Your task to perform on an android device: turn off notifications settings in the gmail app Image 0: 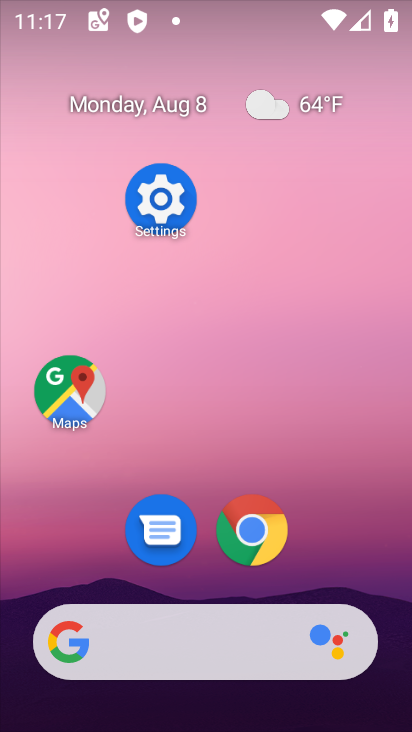
Step 0: drag from (190, 295) to (188, 261)
Your task to perform on an android device: turn off notifications settings in the gmail app Image 1: 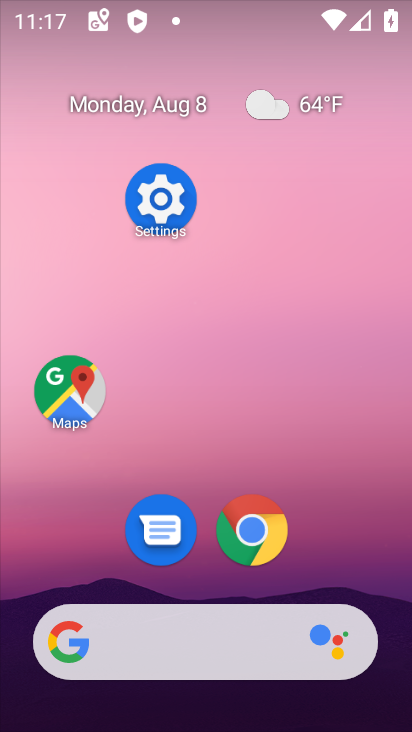
Step 1: drag from (208, 651) to (142, 105)
Your task to perform on an android device: turn off notifications settings in the gmail app Image 2: 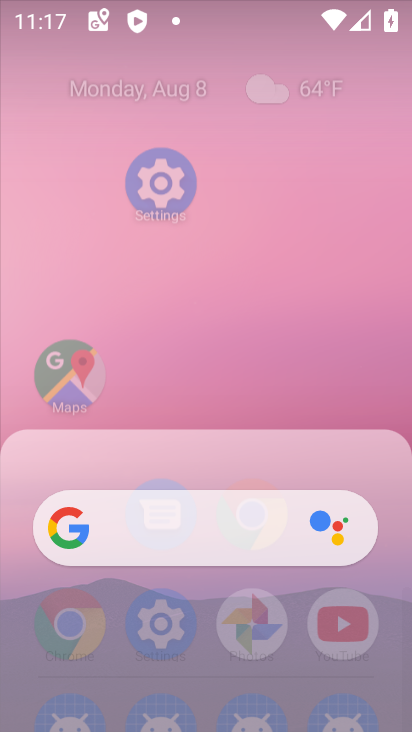
Step 2: drag from (215, 589) to (151, 201)
Your task to perform on an android device: turn off notifications settings in the gmail app Image 3: 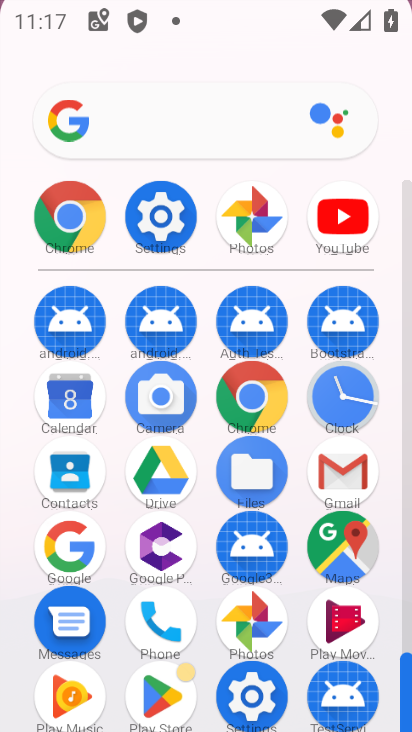
Step 3: drag from (179, 564) to (203, 227)
Your task to perform on an android device: turn off notifications settings in the gmail app Image 4: 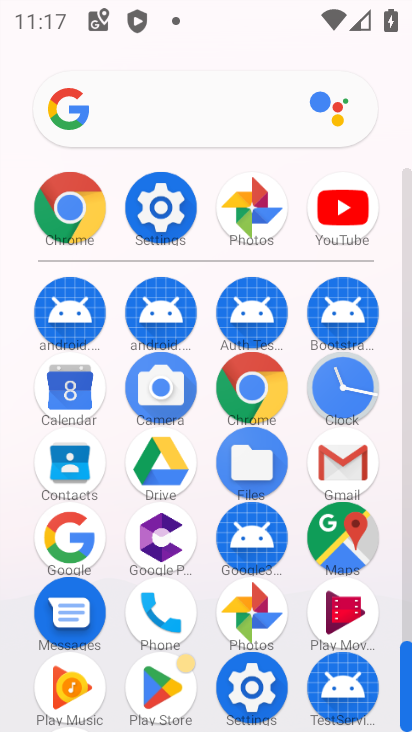
Step 4: click (240, 360)
Your task to perform on an android device: turn off notifications settings in the gmail app Image 5: 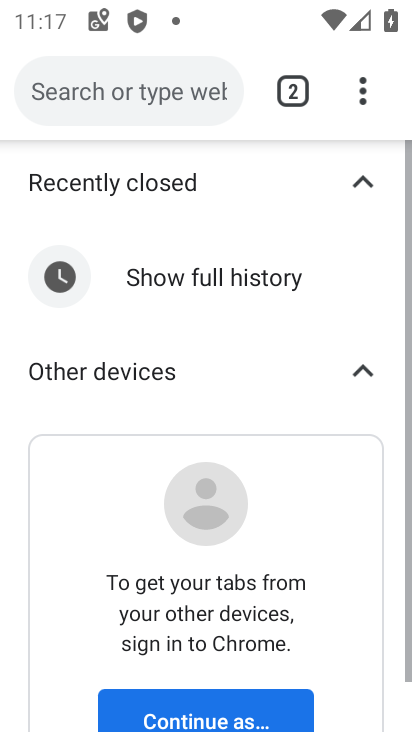
Step 5: press back button
Your task to perform on an android device: turn off notifications settings in the gmail app Image 6: 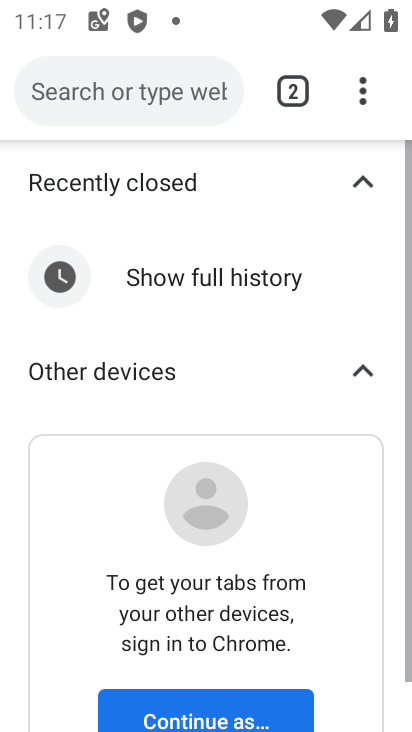
Step 6: press back button
Your task to perform on an android device: turn off notifications settings in the gmail app Image 7: 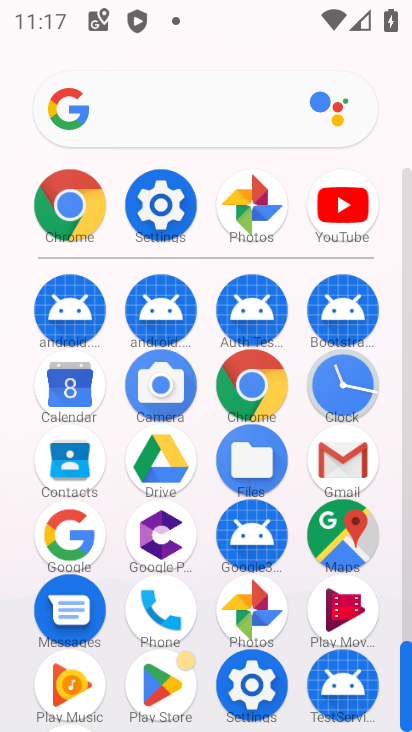
Step 7: click (328, 459)
Your task to perform on an android device: turn off notifications settings in the gmail app Image 8: 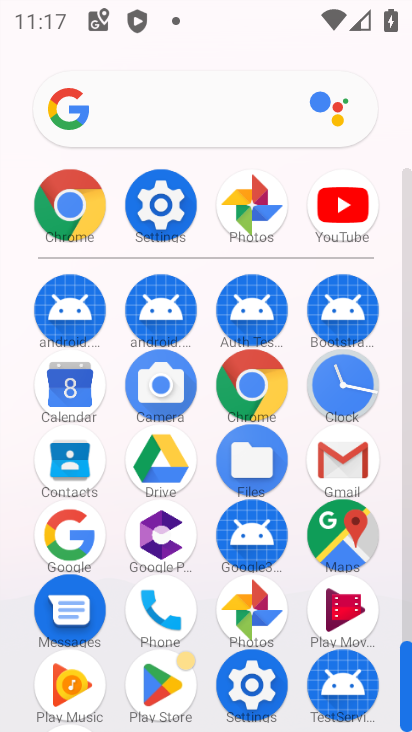
Step 8: click (328, 458)
Your task to perform on an android device: turn off notifications settings in the gmail app Image 9: 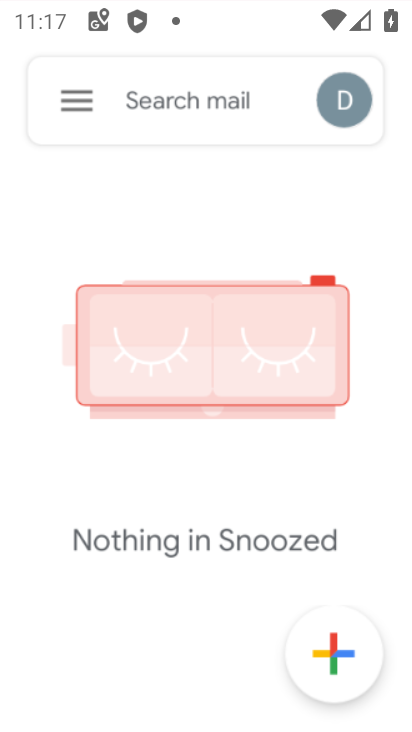
Step 9: click (331, 456)
Your task to perform on an android device: turn off notifications settings in the gmail app Image 10: 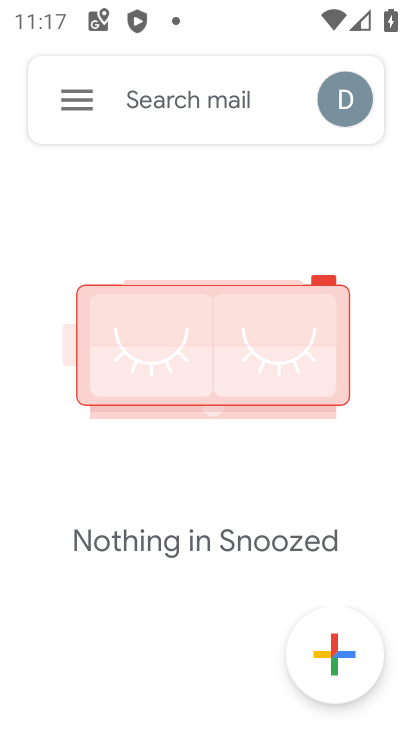
Step 10: click (336, 455)
Your task to perform on an android device: turn off notifications settings in the gmail app Image 11: 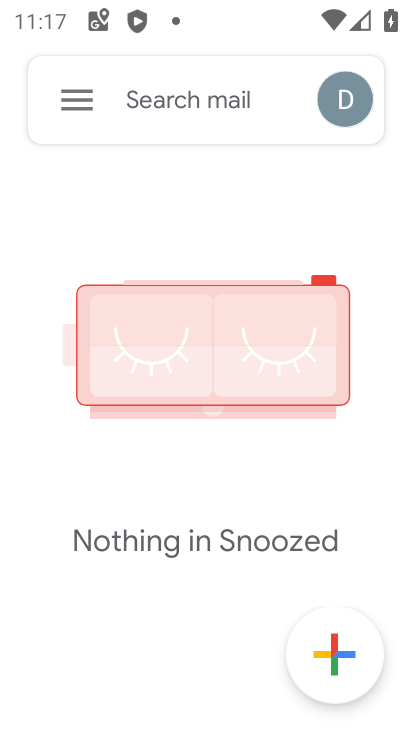
Step 11: press back button
Your task to perform on an android device: turn off notifications settings in the gmail app Image 12: 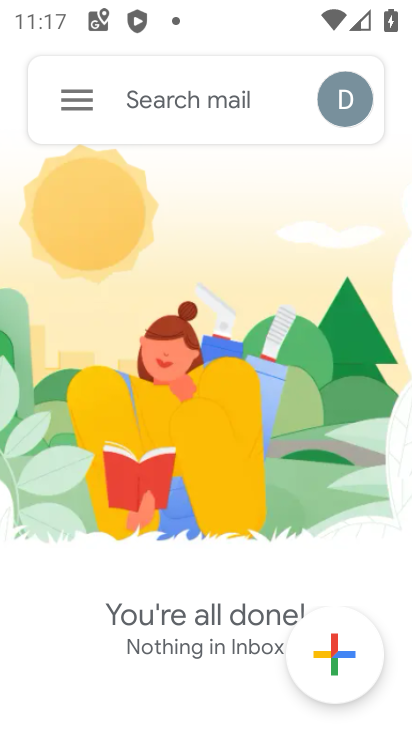
Step 12: click (65, 104)
Your task to perform on an android device: turn off notifications settings in the gmail app Image 13: 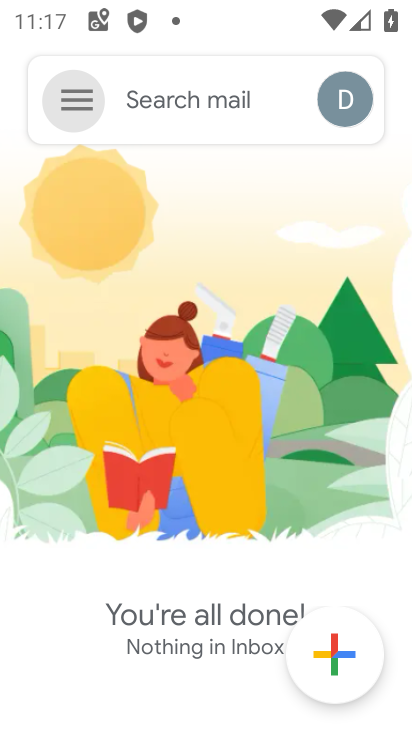
Step 13: click (67, 103)
Your task to perform on an android device: turn off notifications settings in the gmail app Image 14: 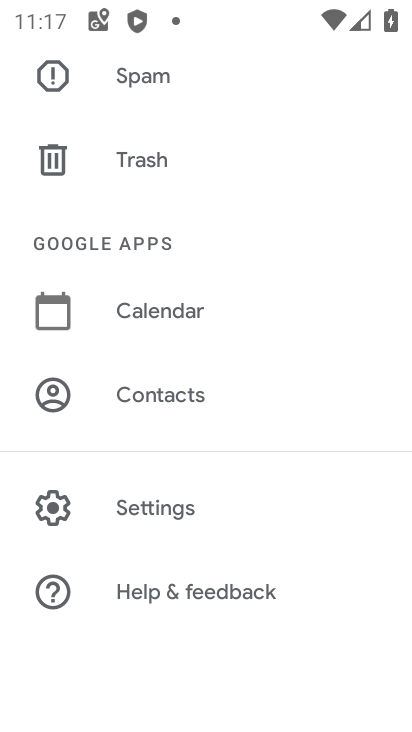
Step 14: click (69, 102)
Your task to perform on an android device: turn off notifications settings in the gmail app Image 15: 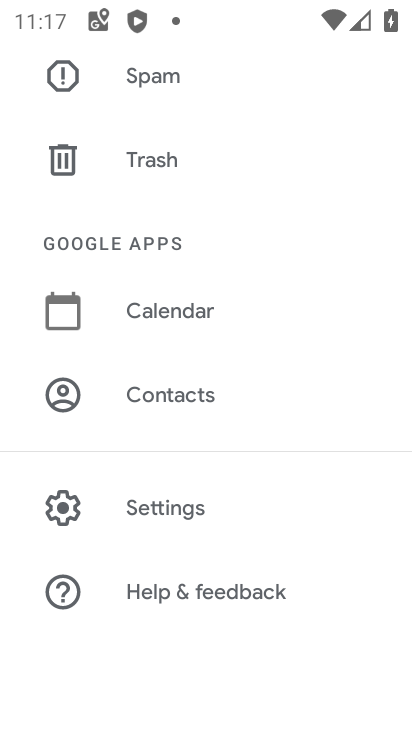
Step 15: drag from (178, 259) to (189, 476)
Your task to perform on an android device: turn off notifications settings in the gmail app Image 16: 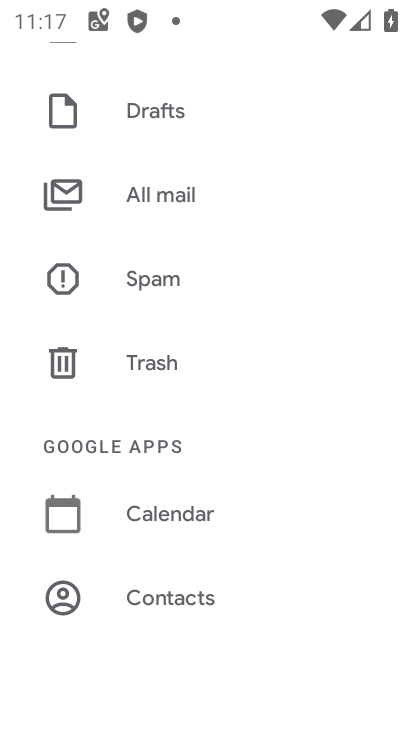
Step 16: drag from (205, 238) to (214, 472)
Your task to perform on an android device: turn off notifications settings in the gmail app Image 17: 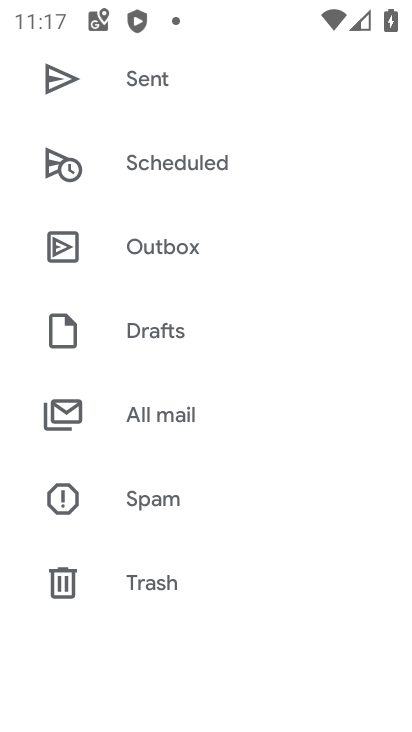
Step 17: drag from (235, 347) to (244, 426)
Your task to perform on an android device: turn off notifications settings in the gmail app Image 18: 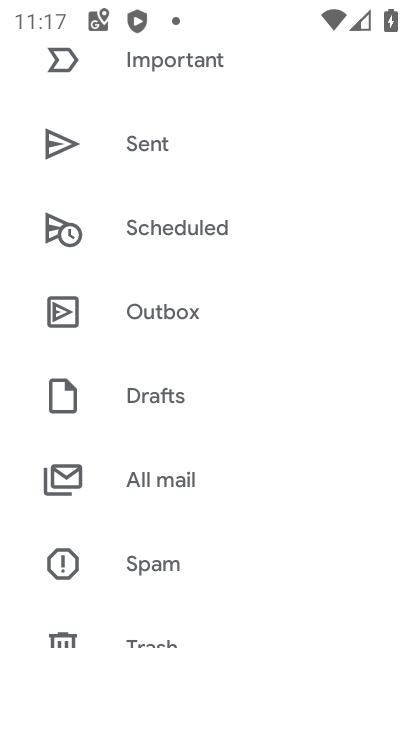
Step 18: drag from (221, 284) to (228, 486)
Your task to perform on an android device: turn off notifications settings in the gmail app Image 19: 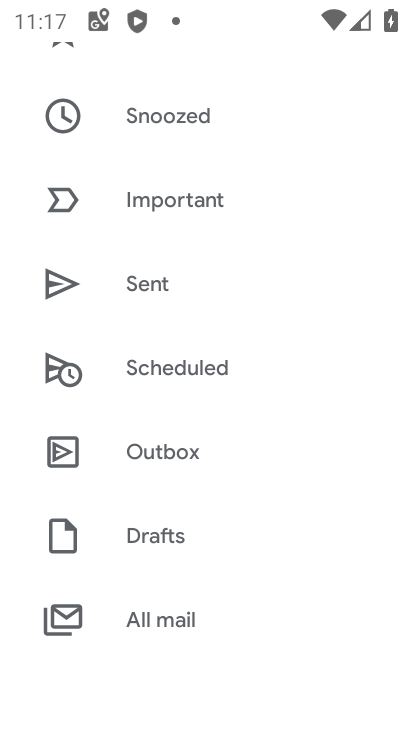
Step 19: drag from (180, 220) to (168, 367)
Your task to perform on an android device: turn off notifications settings in the gmail app Image 20: 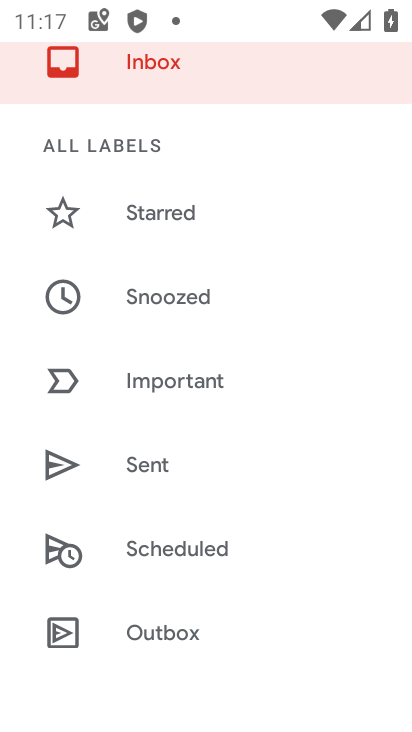
Step 20: drag from (162, 290) to (172, 208)
Your task to perform on an android device: turn off notifications settings in the gmail app Image 21: 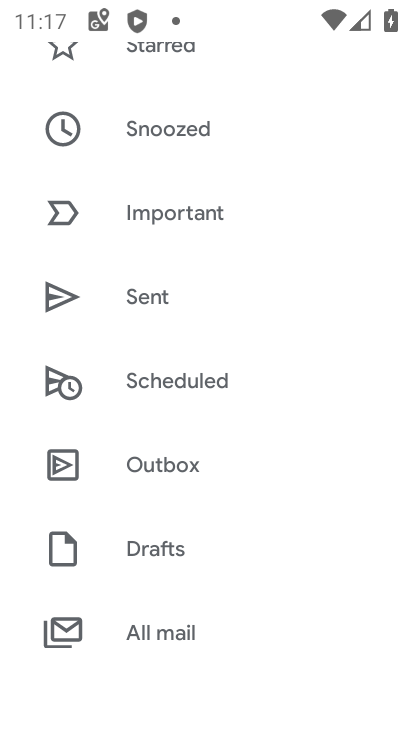
Step 21: drag from (168, 425) to (163, 245)
Your task to perform on an android device: turn off notifications settings in the gmail app Image 22: 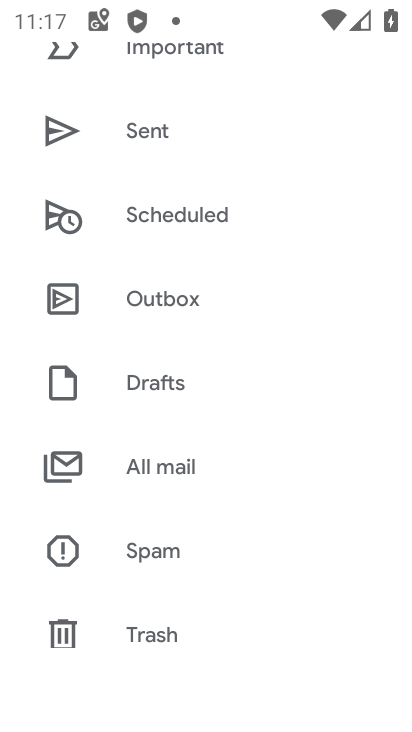
Step 22: drag from (176, 554) to (226, 306)
Your task to perform on an android device: turn off notifications settings in the gmail app Image 23: 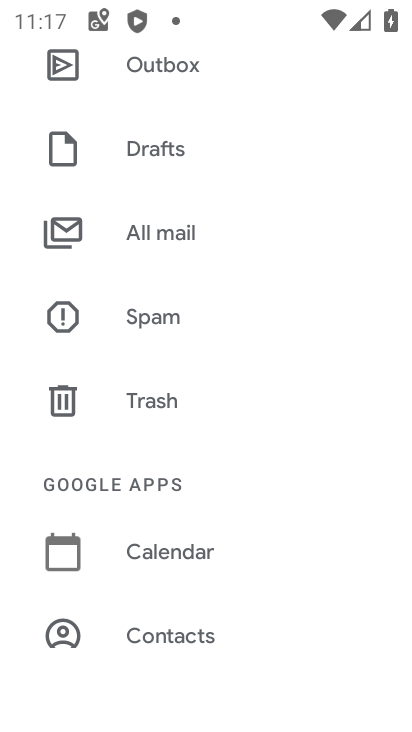
Step 23: drag from (159, 596) to (173, 281)
Your task to perform on an android device: turn off notifications settings in the gmail app Image 24: 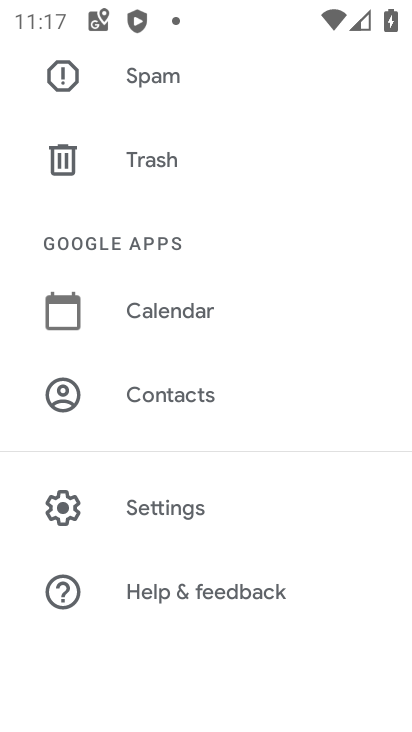
Step 24: drag from (142, 641) to (201, 393)
Your task to perform on an android device: turn off notifications settings in the gmail app Image 25: 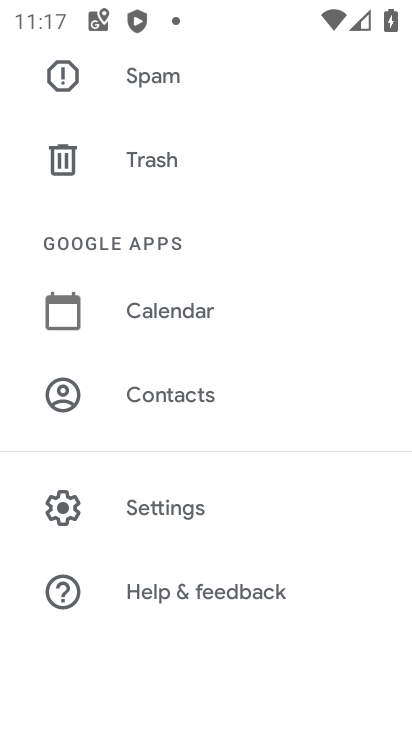
Step 25: click (154, 511)
Your task to perform on an android device: turn off notifications settings in the gmail app Image 26: 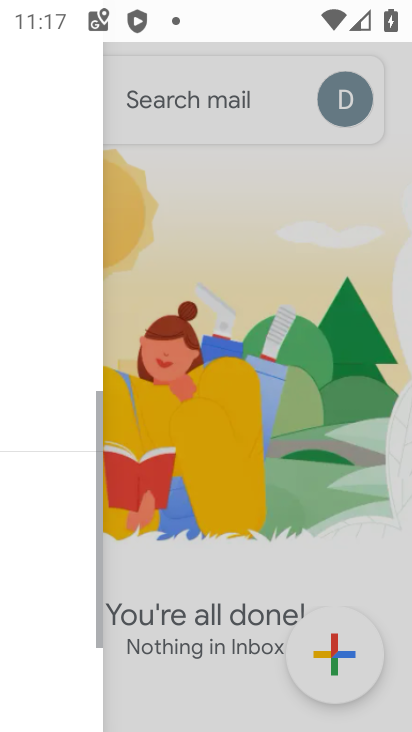
Step 26: click (153, 512)
Your task to perform on an android device: turn off notifications settings in the gmail app Image 27: 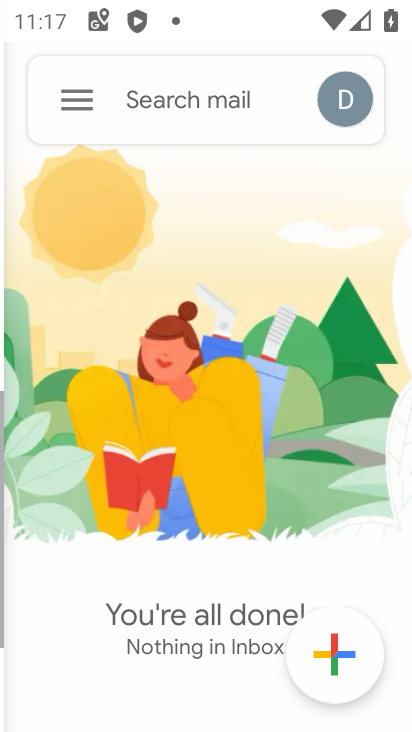
Step 27: click (153, 513)
Your task to perform on an android device: turn off notifications settings in the gmail app Image 28: 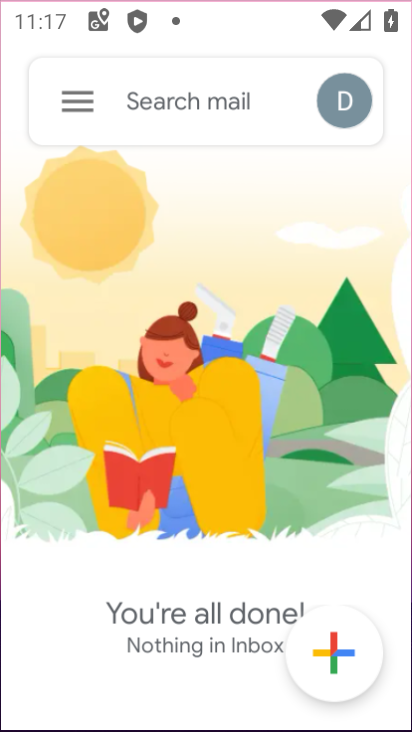
Step 28: click (155, 514)
Your task to perform on an android device: turn off notifications settings in the gmail app Image 29: 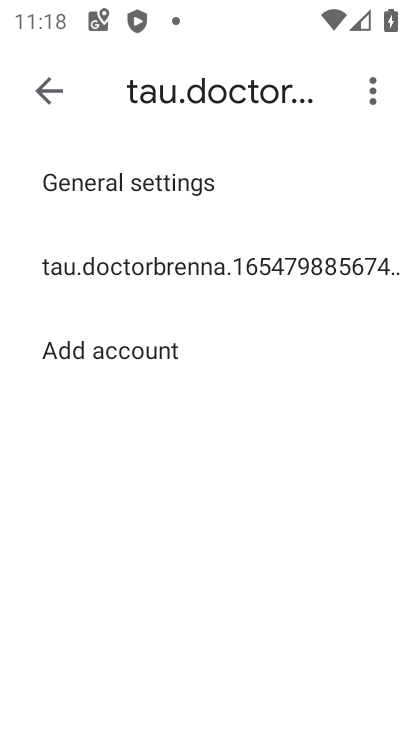
Step 29: click (135, 267)
Your task to perform on an android device: turn off notifications settings in the gmail app Image 30: 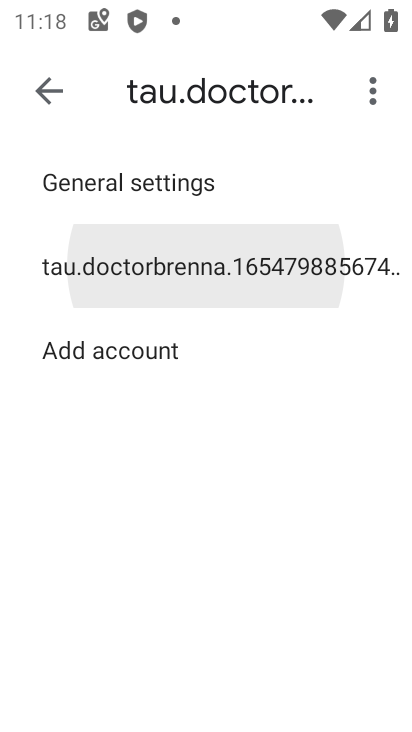
Step 30: click (134, 267)
Your task to perform on an android device: turn off notifications settings in the gmail app Image 31: 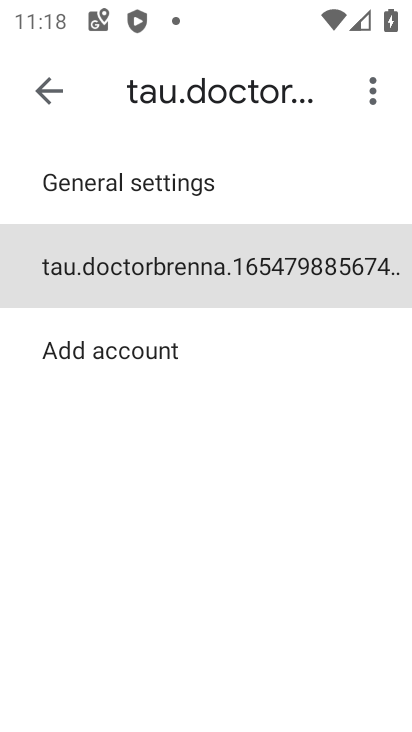
Step 31: click (133, 270)
Your task to perform on an android device: turn off notifications settings in the gmail app Image 32: 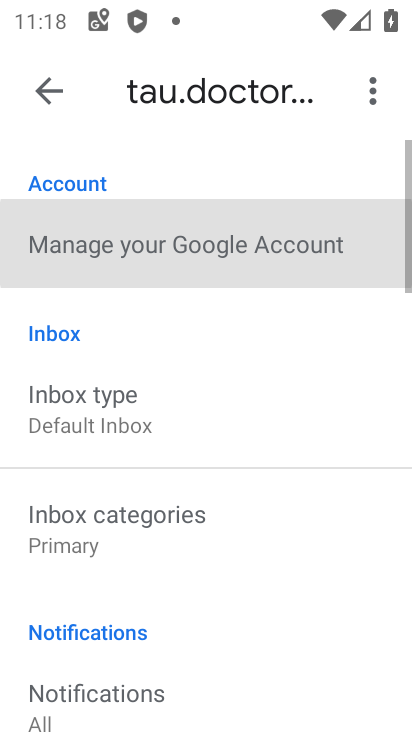
Step 32: click (146, 277)
Your task to perform on an android device: turn off notifications settings in the gmail app Image 33: 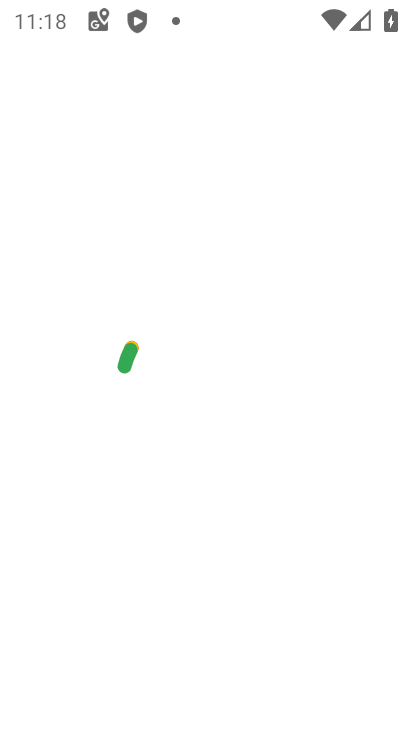
Step 33: press back button
Your task to perform on an android device: turn off notifications settings in the gmail app Image 34: 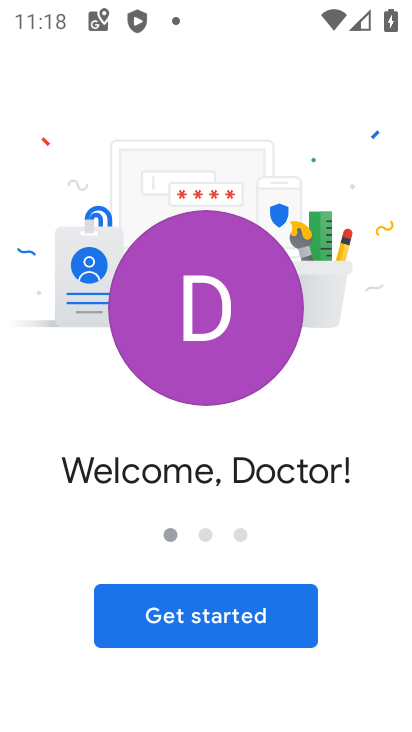
Step 34: press back button
Your task to perform on an android device: turn off notifications settings in the gmail app Image 35: 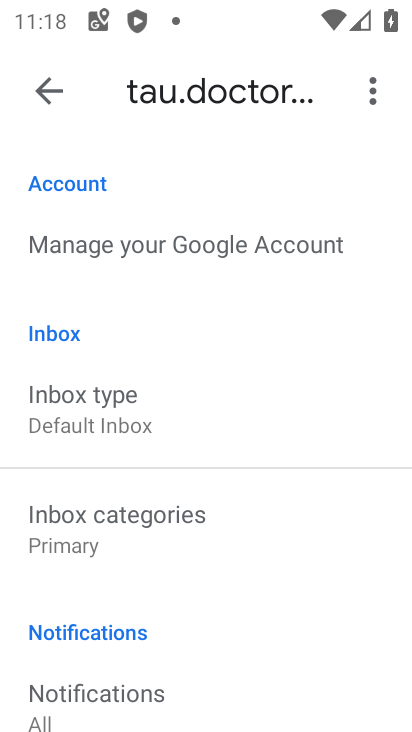
Step 35: drag from (36, 517) to (72, 239)
Your task to perform on an android device: turn off notifications settings in the gmail app Image 36: 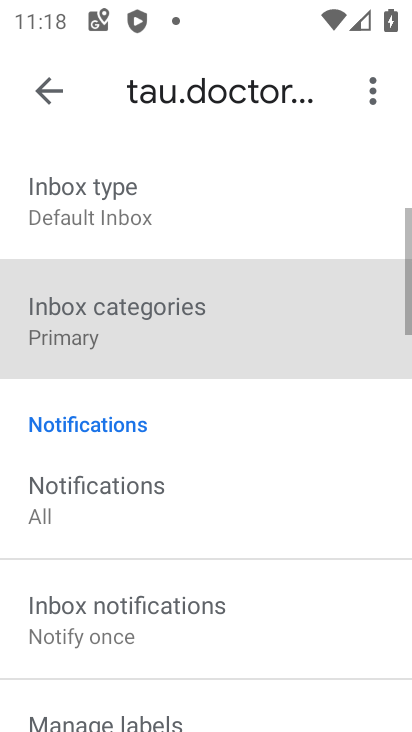
Step 36: drag from (146, 508) to (143, 273)
Your task to perform on an android device: turn off notifications settings in the gmail app Image 37: 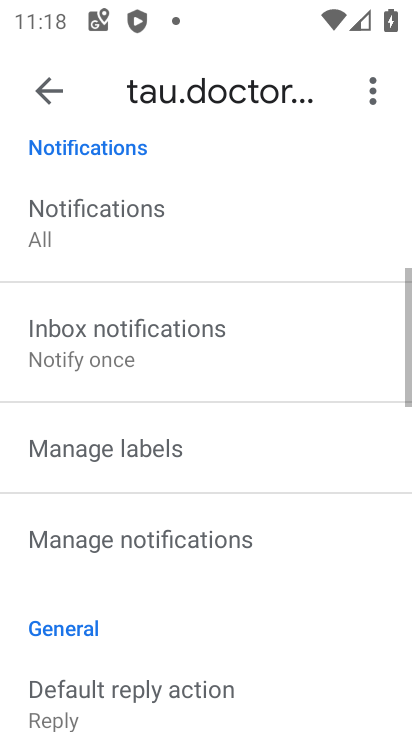
Step 37: drag from (97, 470) to (74, 241)
Your task to perform on an android device: turn off notifications settings in the gmail app Image 38: 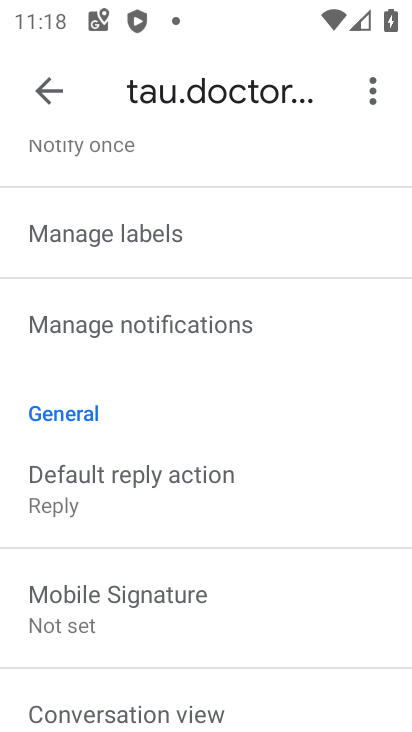
Step 38: drag from (196, 567) to (191, 409)
Your task to perform on an android device: turn off notifications settings in the gmail app Image 39: 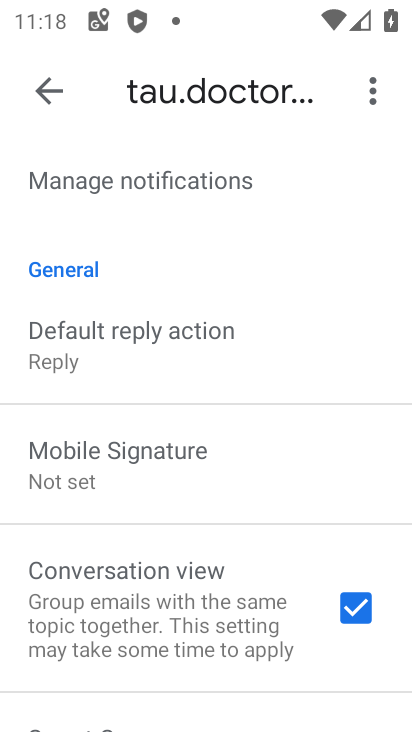
Step 39: drag from (255, 464) to (216, 194)
Your task to perform on an android device: turn off notifications settings in the gmail app Image 40: 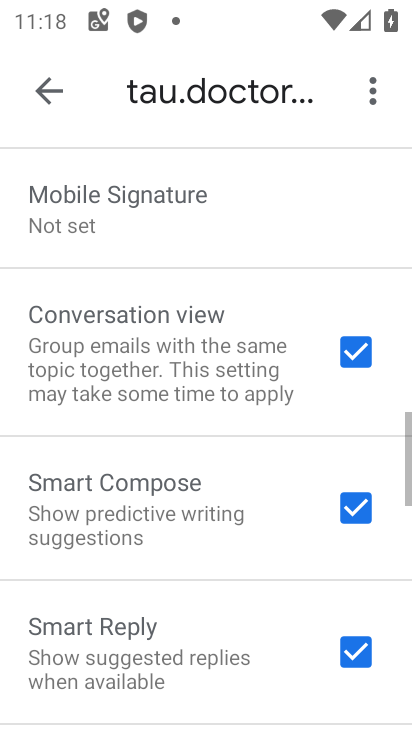
Step 40: drag from (285, 467) to (290, 285)
Your task to perform on an android device: turn off notifications settings in the gmail app Image 41: 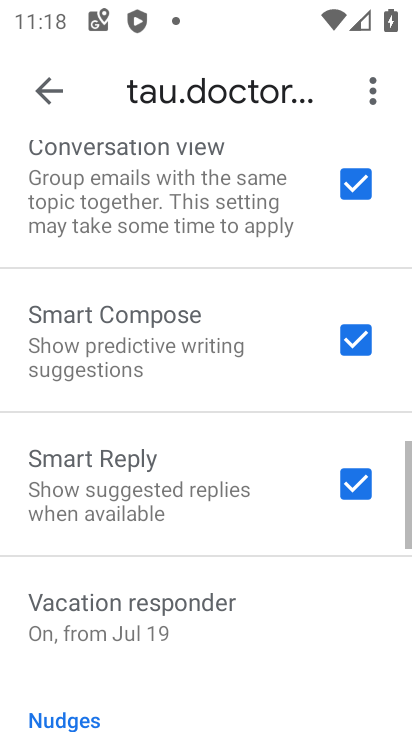
Step 41: drag from (200, 594) to (200, 318)
Your task to perform on an android device: turn off notifications settings in the gmail app Image 42: 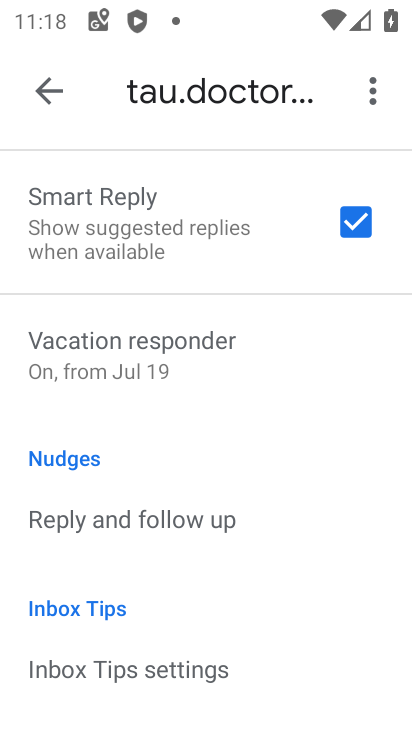
Step 42: drag from (182, 586) to (191, 317)
Your task to perform on an android device: turn off notifications settings in the gmail app Image 43: 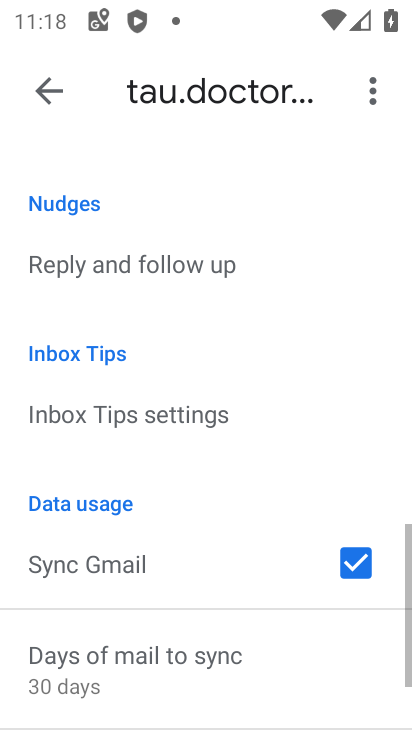
Step 43: drag from (207, 502) to (179, 279)
Your task to perform on an android device: turn off notifications settings in the gmail app Image 44: 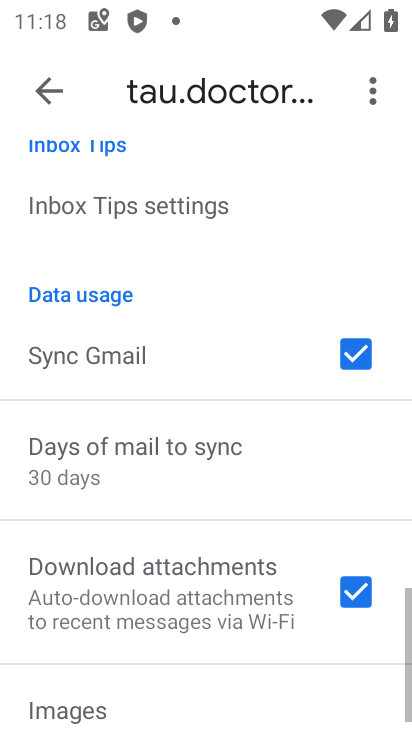
Step 44: drag from (236, 518) to (235, 306)
Your task to perform on an android device: turn off notifications settings in the gmail app Image 45: 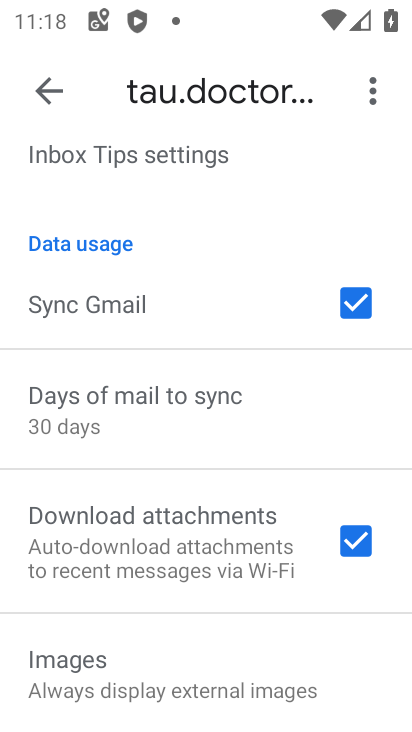
Step 45: drag from (184, 265) to (123, 580)
Your task to perform on an android device: turn off notifications settings in the gmail app Image 46: 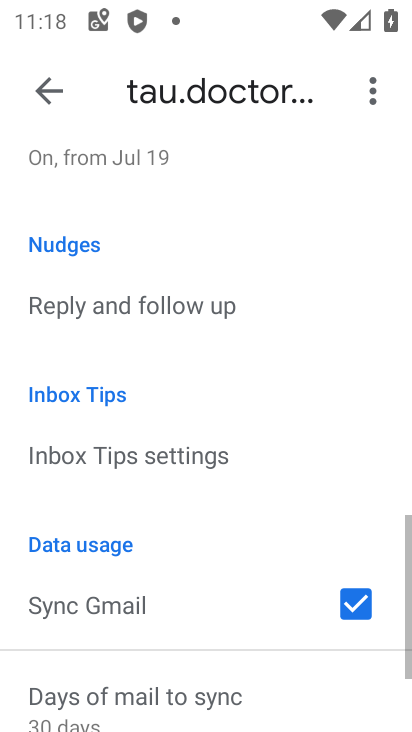
Step 46: drag from (124, 445) to (141, 563)
Your task to perform on an android device: turn off notifications settings in the gmail app Image 47: 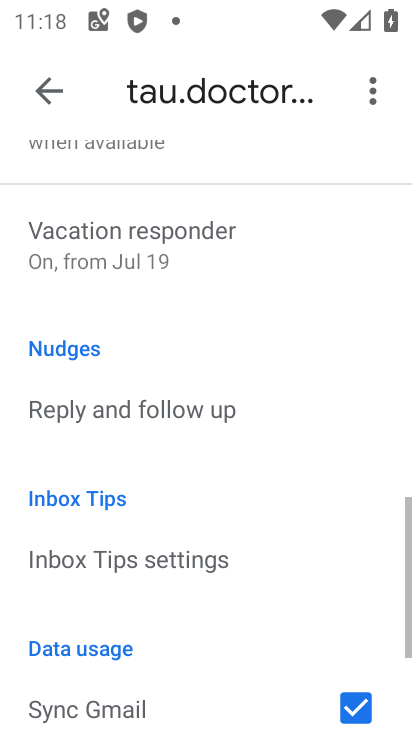
Step 47: drag from (166, 371) to (183, 661)
Your task to perform on an android device: turn off notifications settings in the gmail app Image 48: 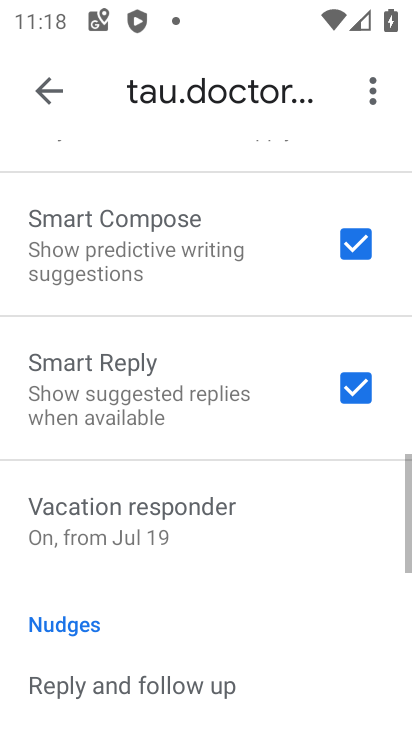
Step 48: drag from (206, 345) to (195, 724)
Your task to perform on an android device: turn off notifications settings in the gmail app Image 49: 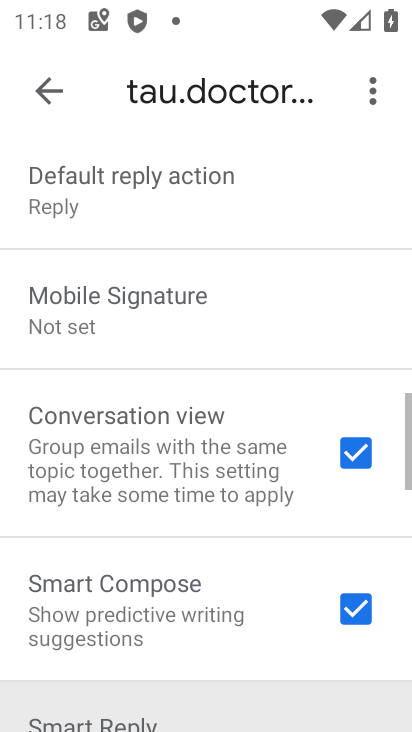
Step 49: drag from (206, 366) to (218, 527)
Your task to perform on an android device: turn off notifications settings in the gmail app Image 50: 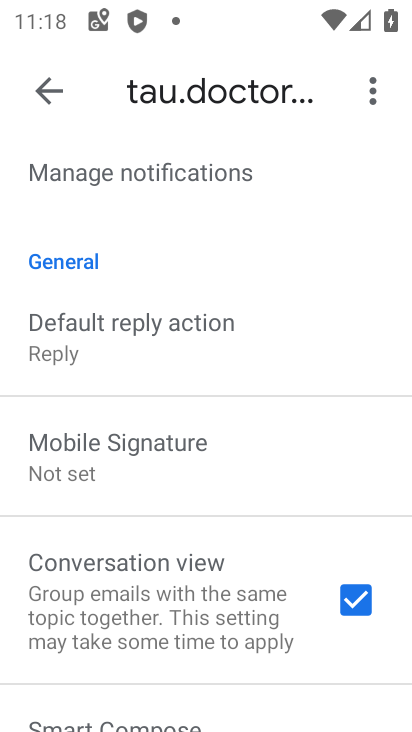
Step 50: drag from (162, 634) to (121, 353)
Your task to perform on an android device: turn off notifications settings in the gmail app Image 51: 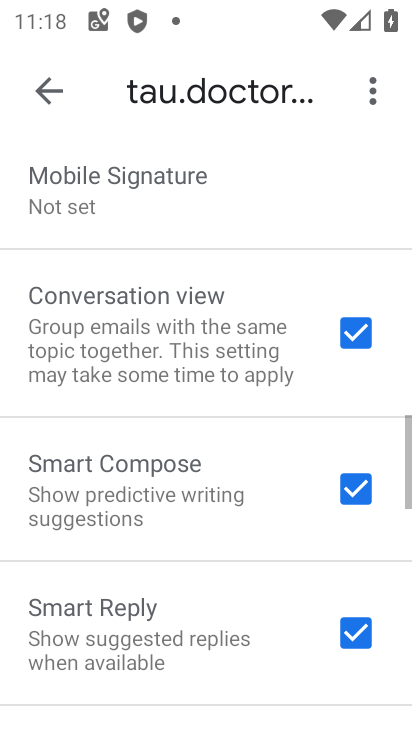
Step 51: drag from (175, 539) to (163, 377)
Your task to perform on an android device: turn off notifications settings in the gmail app Image 52: 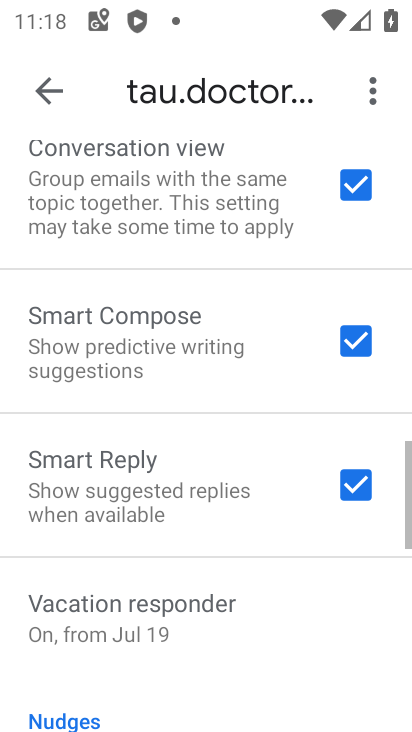
Step 52: drag from (197, 424) to (186, 293)
Your task to perform on an android device: turn off notifications settings in the gmail app Image 53: 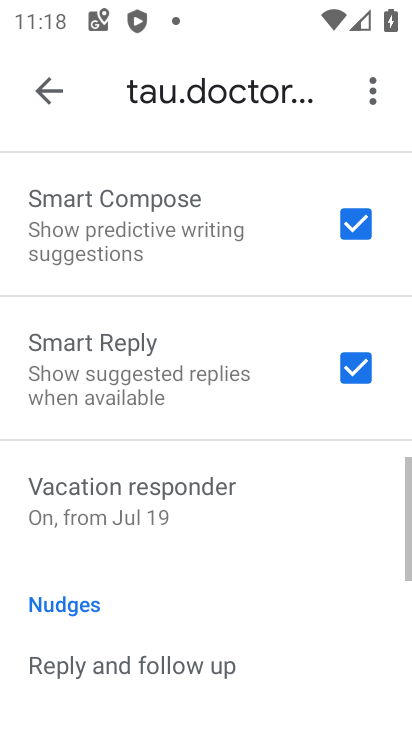
Step 53: drag from (199, 445) to (191, 285)
Your task to perform on an android device: turn off notifications settings in the gmail app Image 54: 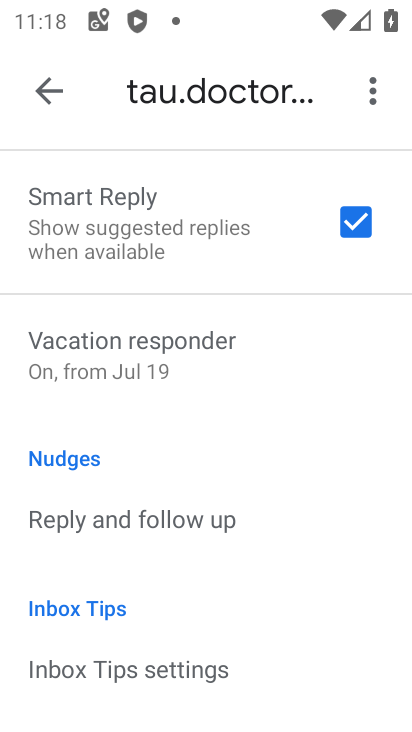
Step 54: drag from (187, 535) to (161, 394)
Your task to perform on an android device: turn off notifications settings in the gmail app Image 55: 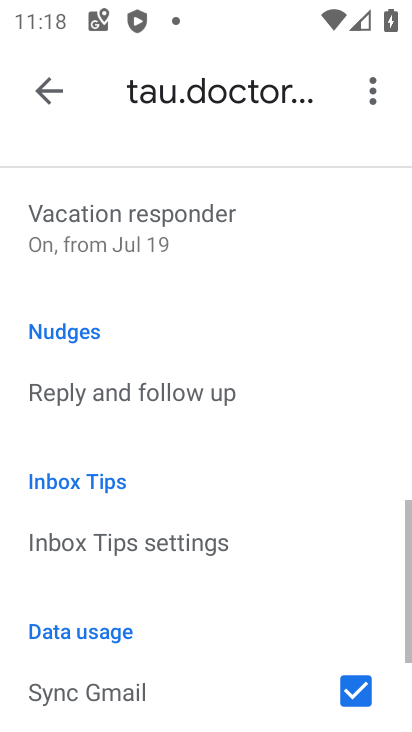
Step 55: drag from (165, 523) to (154, 368)
Your task to perform on an android device: turn off notifications settings in the gmail app Image 56: 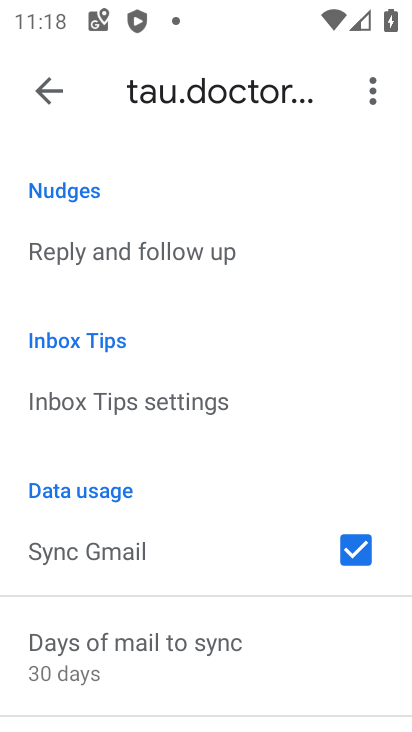
Step 56: drag from (166, 582) to (160, 319)
Your task to perform on an android device: turn off notifications settings in the gmail app Image 57: 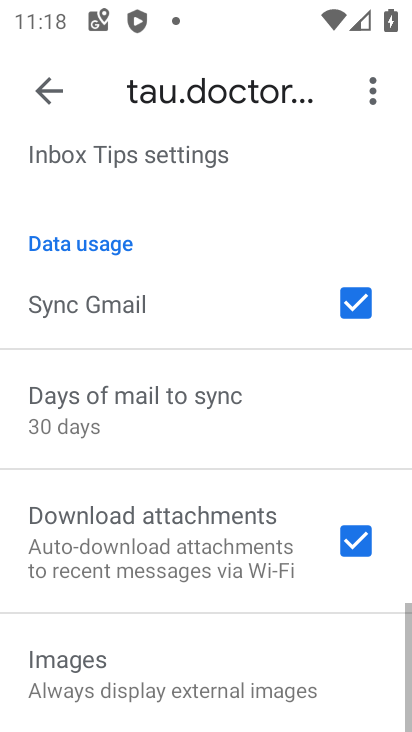
Step 57: drag from (201, 534) to (183, 363)
Your task to perform on an android device: turn off notifications settings in the gmail app Image 58: 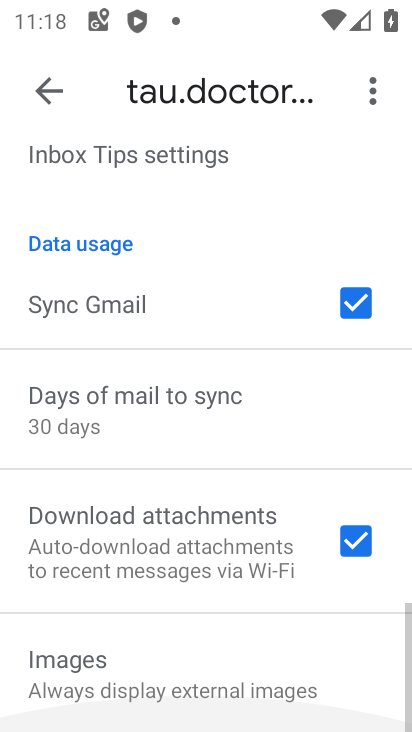
Step 58: drag from (216, 478) to (210, 343)
Your task to perform on an android device: turn off notifications settings in the gmail app Image 59: 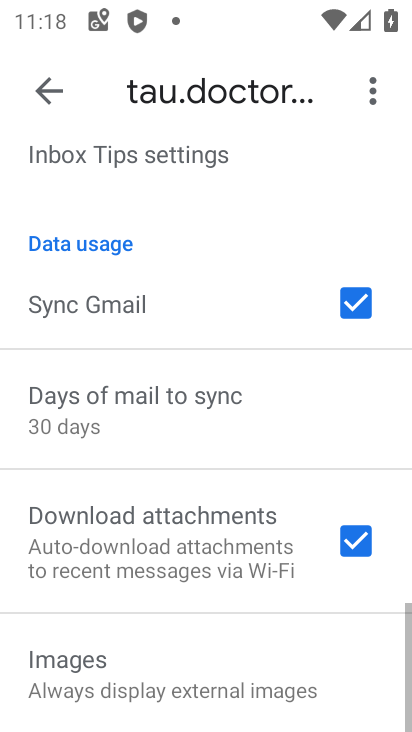
Step 59: drag from (198, 611) to (173, 315)
Your task to perform on an android device: turn off notifications settings in the gmail app Image 60: 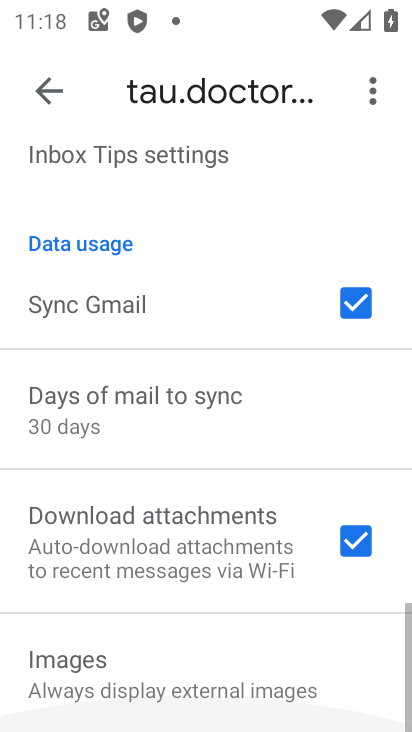
Step 60: drag from (164, 542) to (188, 245)
Your task to perform on an android device: turn off notifications settings in the gmail app Image 61: 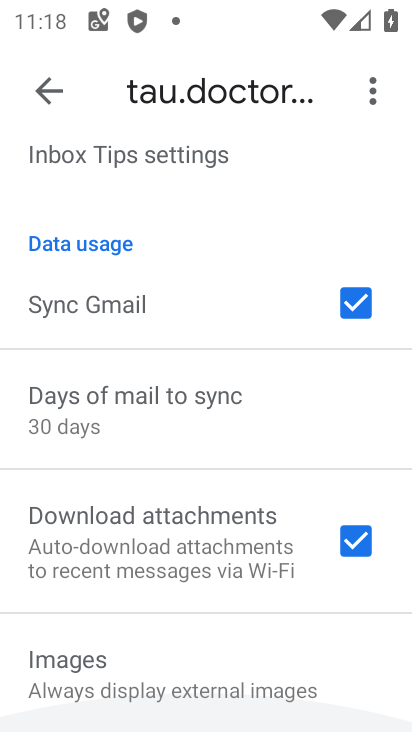
Step 61: drag from (199, 207) to (200, 542)
Your task to perform on an android device: turn off notifications settings in the gmail app Image 62: 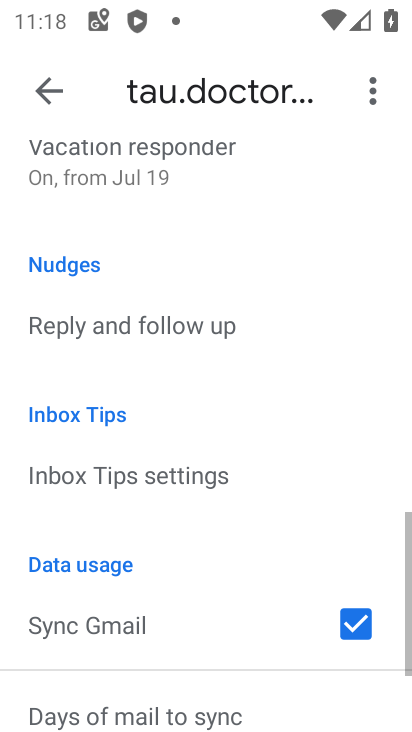
Step 62: drag from (229, 258) to (229, 528)
Your task to perform on an android device: turn off notifications settings in the gmail app Image 63: 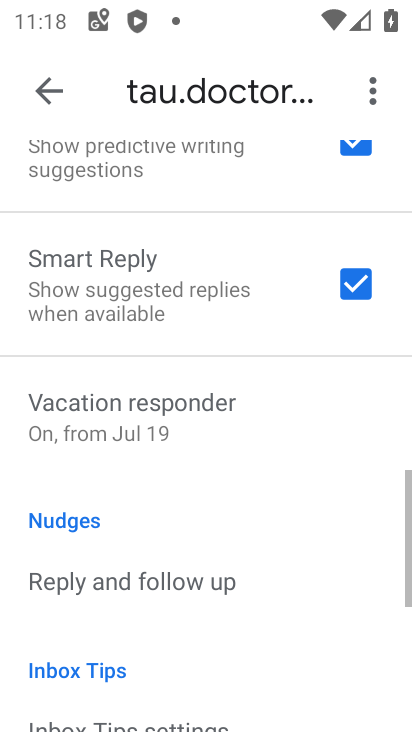
Step 63: drag from (186, 325) to (186, 545)
Your task to perform on an android device: turn off notifications settings in the gmail app Image 64: 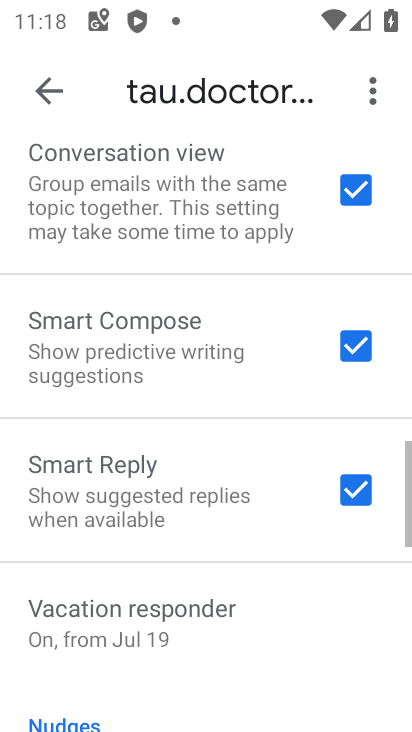
Step 64: drag from (165, 325) to (165, 548)
Your task to perform on an android device: turn off notifications settings in the gmail app Image 65: 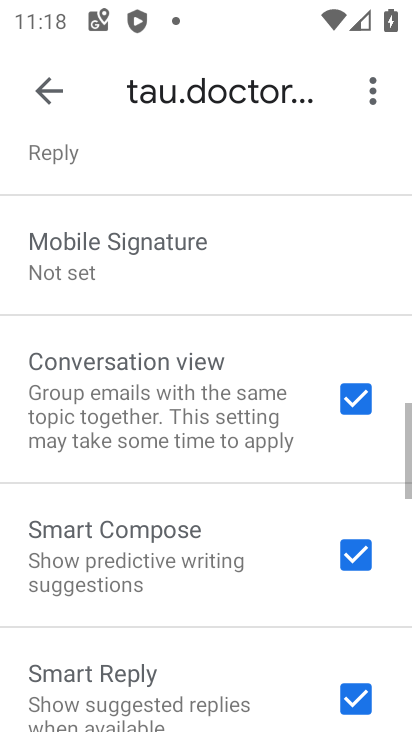
Step 65: drag from (154, 343) to (170, 551)
Your task to perform on an android device: turn off notifications settings in the gmail app Image 66: 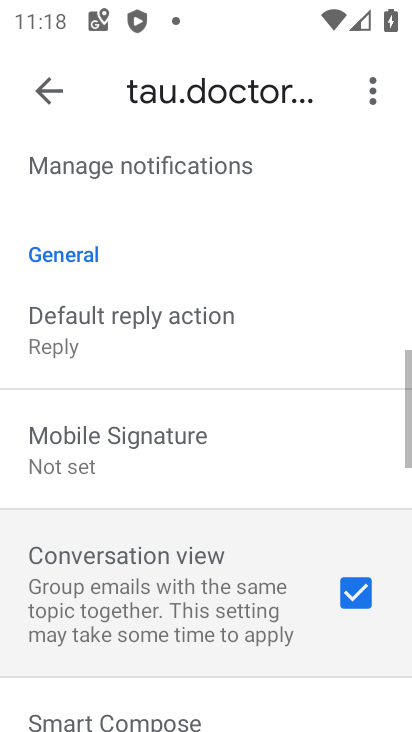
Step 66: drag from (173, 323) to (170, 567)
Your task to perform on an android device: turn off notifications settings in the gmail app Image 67: 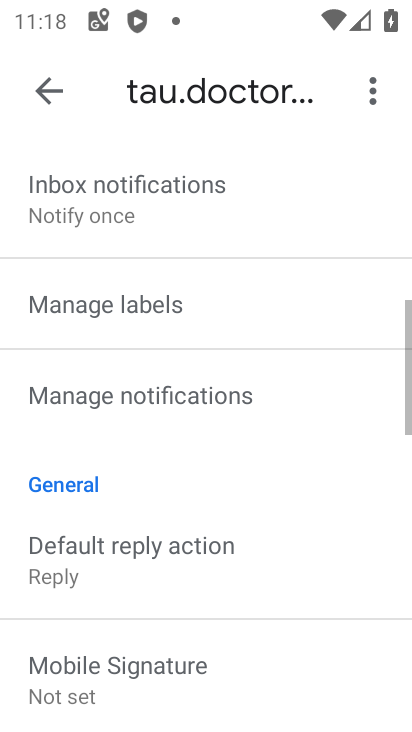
Step 67: drag from (173, 323) to (175, 556)
Your task to perform on an android device: turn off notifications settings in the gmail app Image 68: 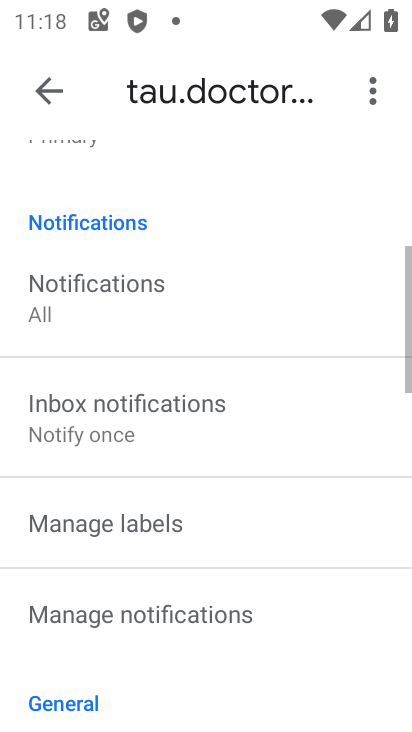
Step 68: drag from (194, 345) to (184, 520)
Your task to perform on an android device: turn off notifications settings in the gmail app Image 69: 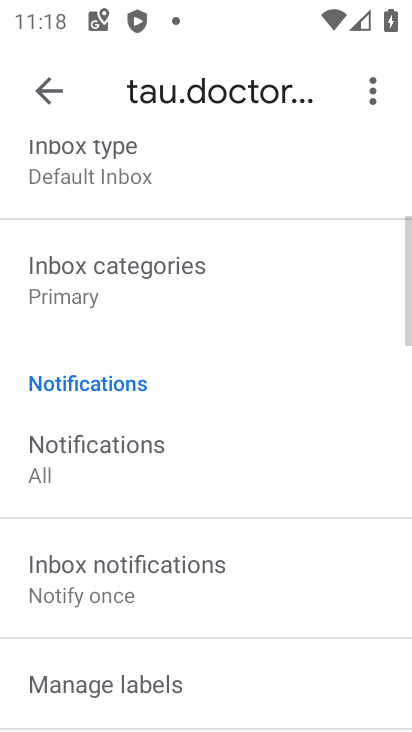
Step 69: click (63, 450)
Your task to perform on an android device: turn off notifications settings in the gmail app Image 70: 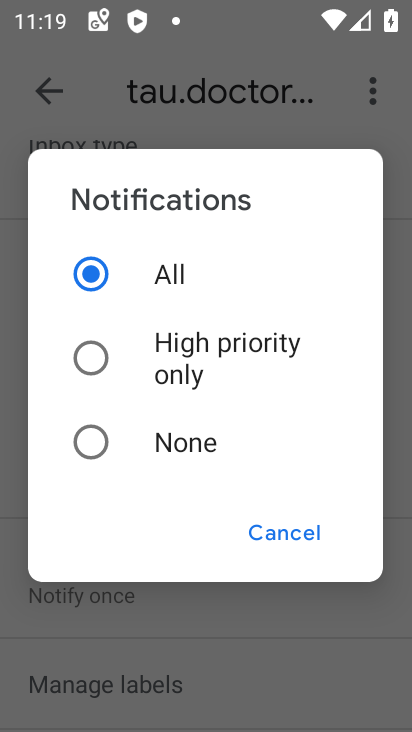
Step 70: click (88, 446)
Your task to perform on an android device: turn off notifications settings in the gmail app Image 71: 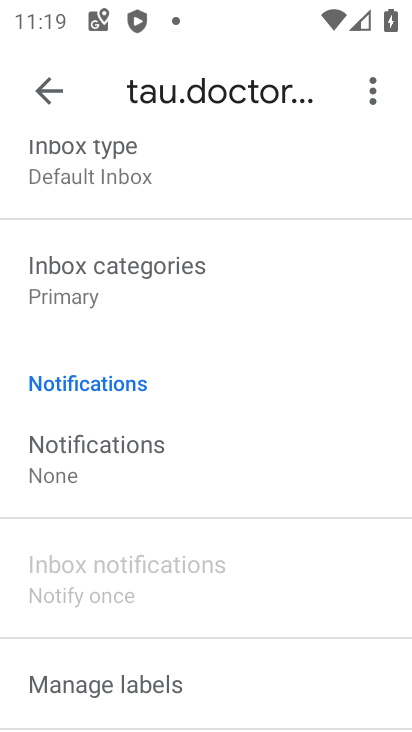
Step 71: click (86, 459)
Your task to perform on an android device: turn off notifications settings in the gmail app Image 72: 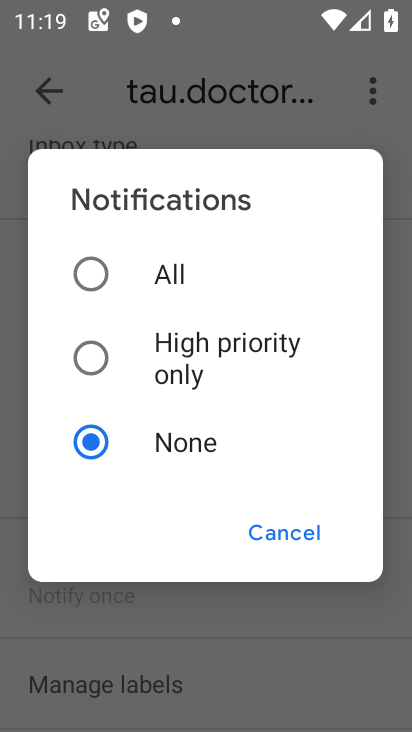
Step 72: click (281, 527)
Your task to perform on an android device: turn off notifications settings in the gmail app Image 73: 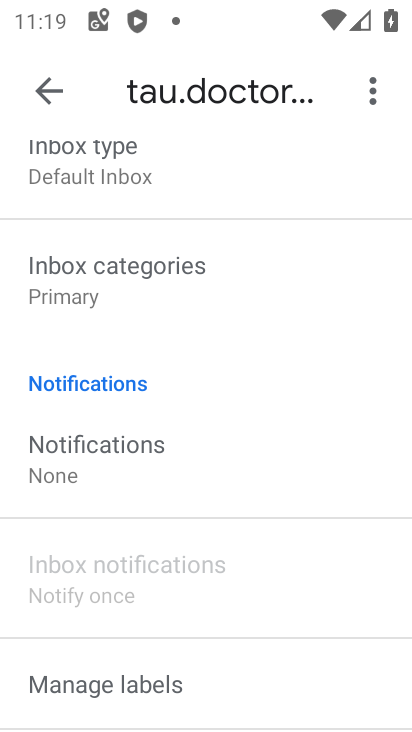
Step 73: task complete